Your task to perform on an android device: What's on my calendar today? Image 0: 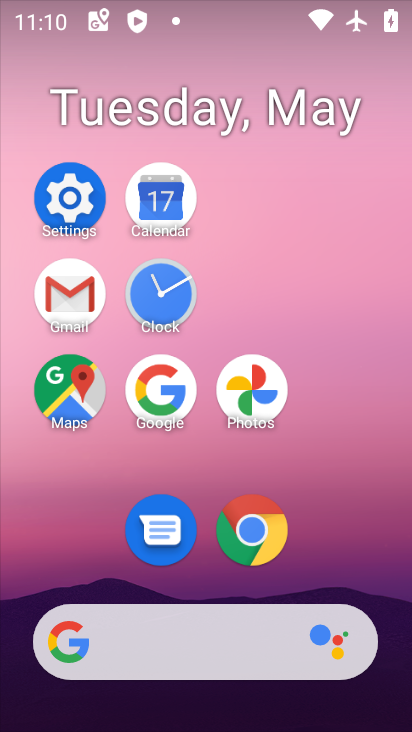
Step 0: click (163, 192)
Your task to perform on an android device: What's on my calendar today? Image 1: 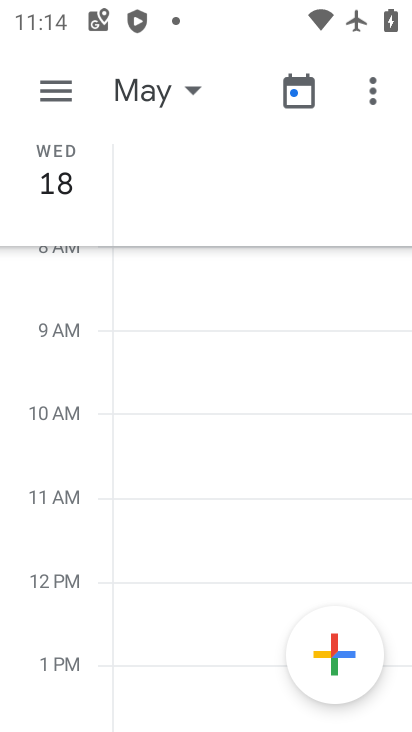
Step 1: task complete